Your task to perform on an android device: Open maps Image 0: 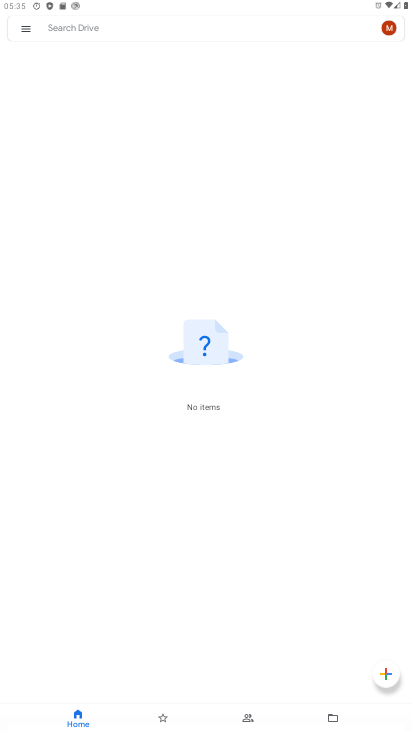
Step 0: press home button
Your task to perform on an android device: Open maps Image 1: 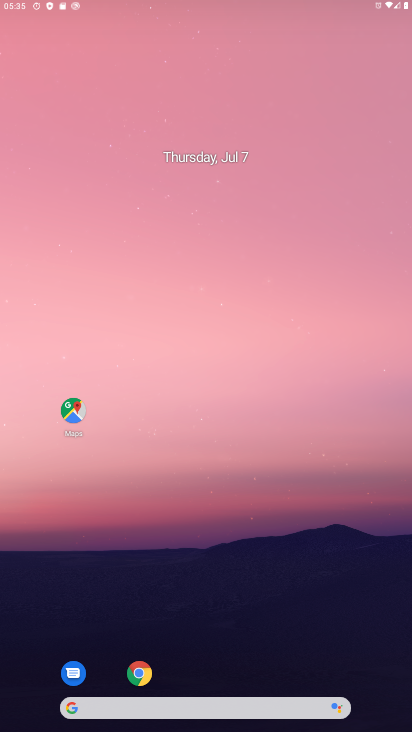
Step 1: drag from (270, 667) to (288, 32)
Your task to perform on an android device: Open maps Image 2: 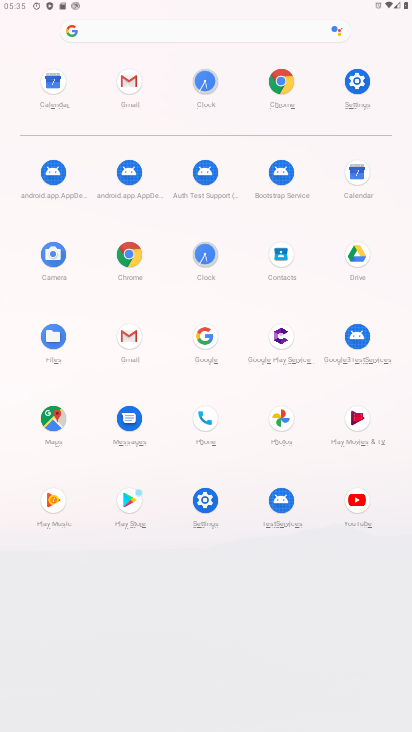
Step 2: click (43, 427)
Your task to perform on an android device: Open maps Image 3: 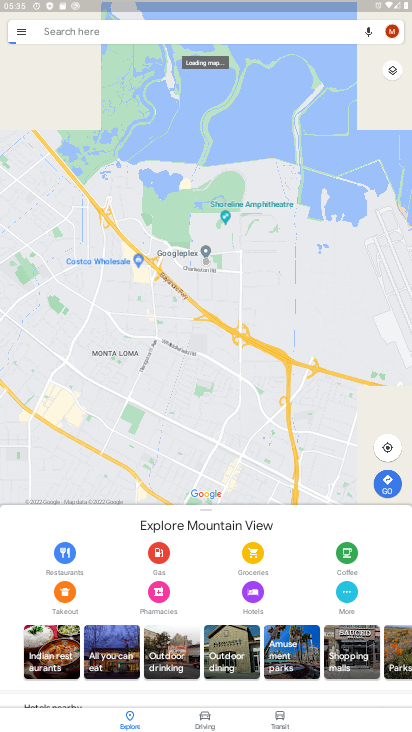
Step 3: task complete